Your task to perform on an android device: star an email in the gmail app Image 0: 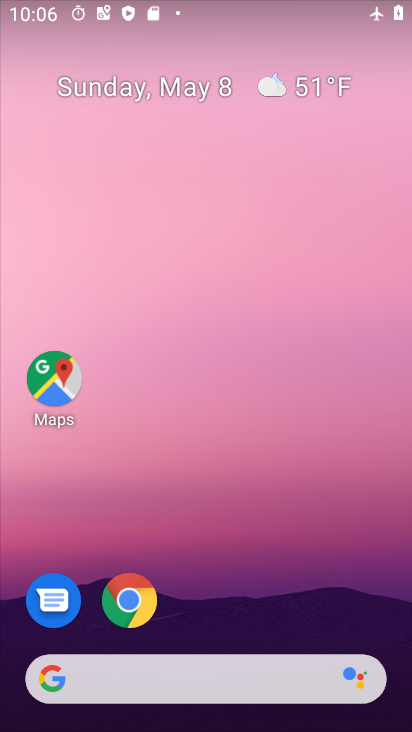
Step 0: drag from (251, 558) to (209, 14)
Your task to perform on an android device: star an email in the gmail app Image 1: 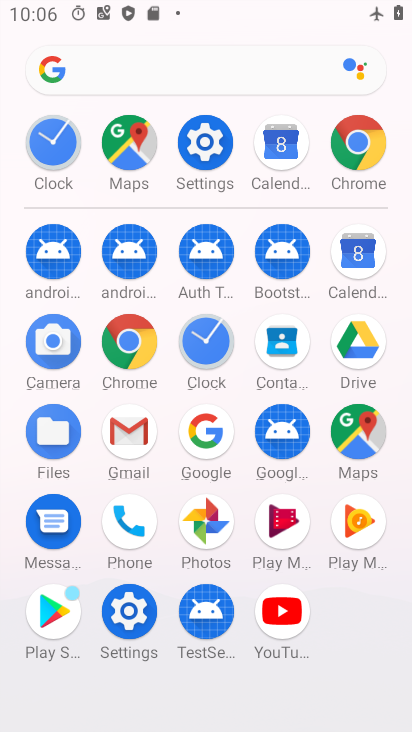
Step 1: drag from (3, 582) to (17, 295)
Your task to perform on an android device: star an email in the gmail app Image 2: 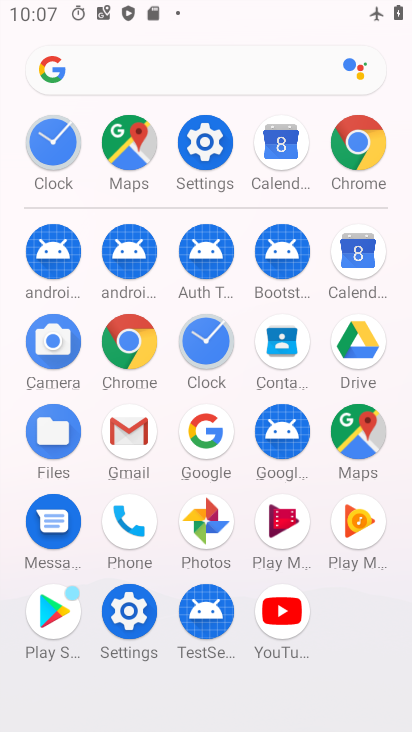
Step 2: click (126, 428)
Your task to perform on an android device: star an email in the gmail app Image 3: 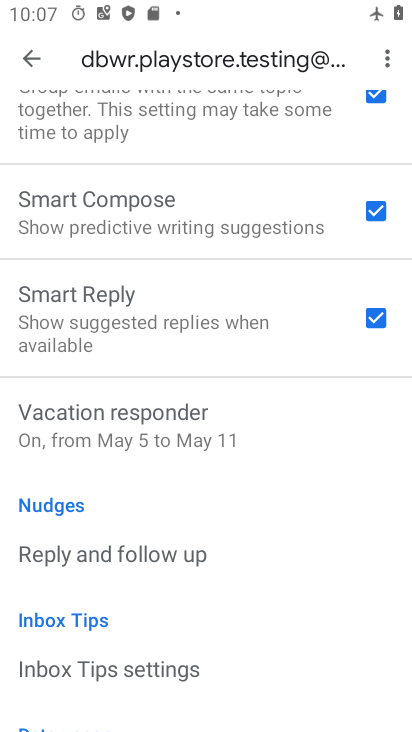
Step 3: click (34, 59)
Your task to perform on an android device: star an email in the gmail app Image 4: 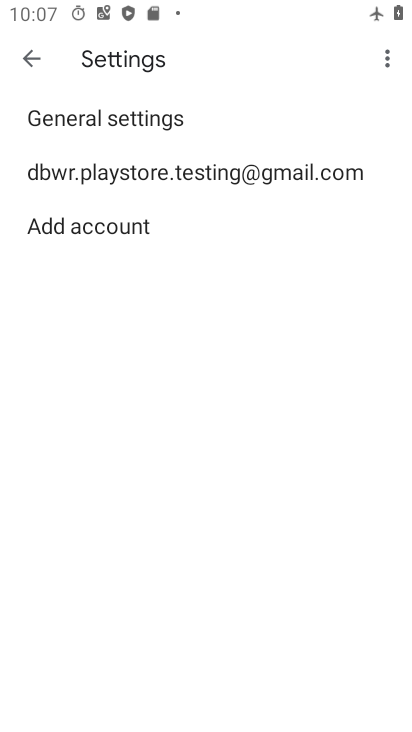
Step 4: click (34, 59)
Your task to perform on an android device: star an email in the gmail app Image 5: 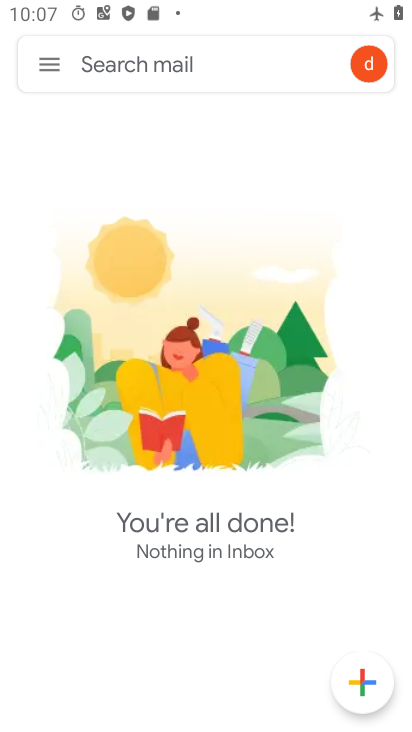
Step 5: click (45, 62)
Your task to perform on an android device: star an email in the gmail app Image 6: 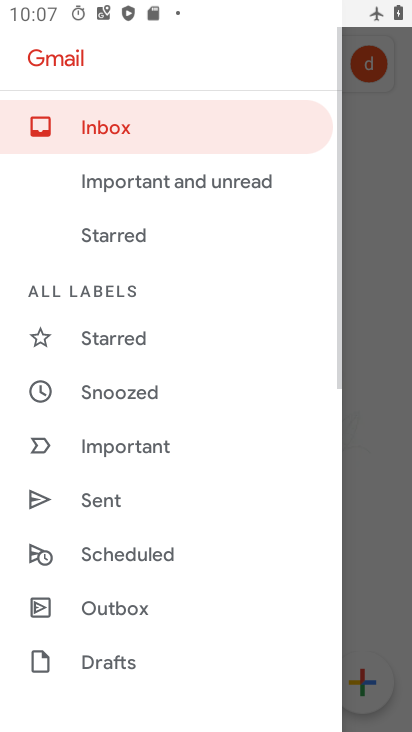
Step 6: drag from (221, 614) to (240, 164)
Your task to perform on an android device: star an email in the gmail app Image 7: 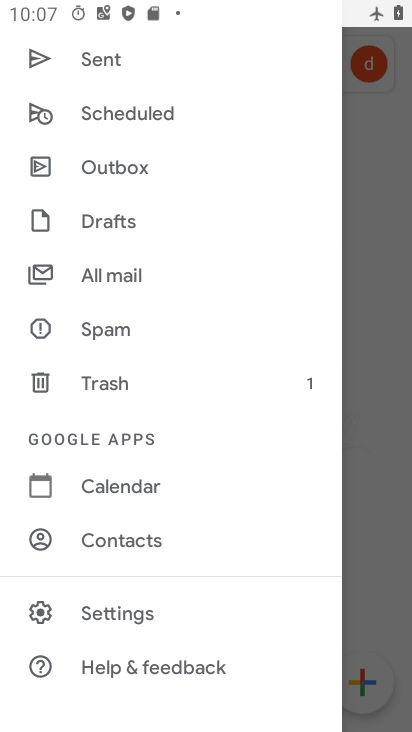
Step 7: click (156, 385)
Your task to perform on an android device: star an email in the gmail app Image 8: 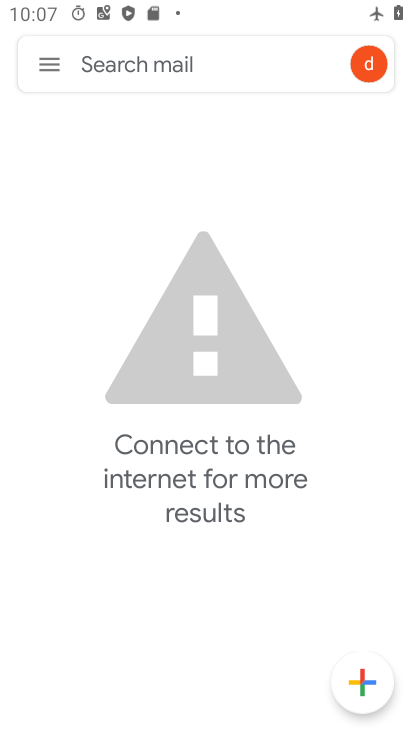
Step 8: task complete